Your task to perform on an android device: Search for alienware area 51 on costco.com, select the first entry, and add it to the cart. Image 0: 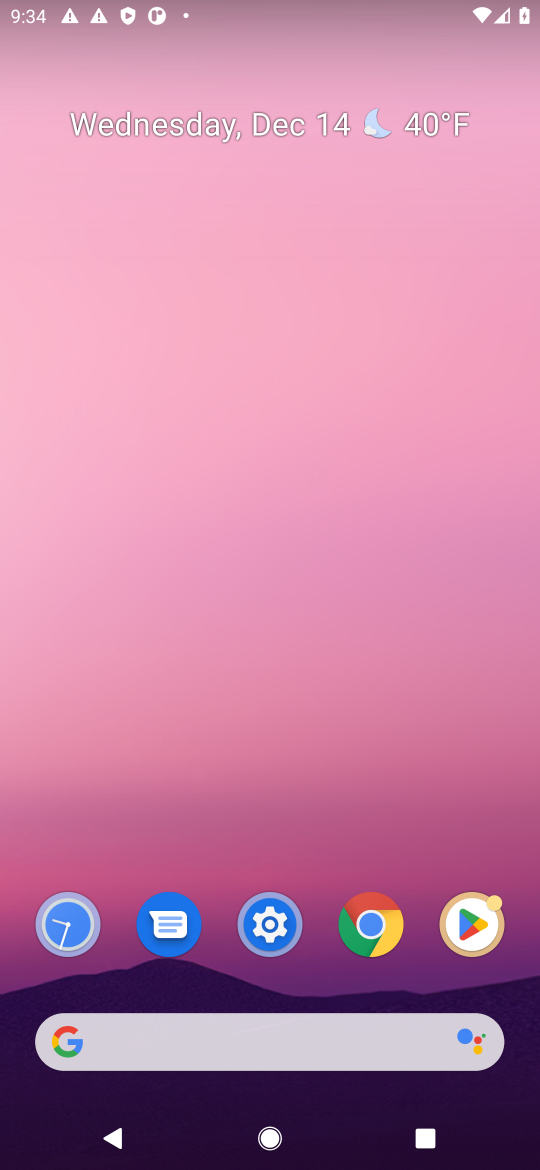
Step 0: click (372, 935)
Your task to perform on an android device: Search for alienware area 51 on costco.com, select the first entry, and add it to the cart. Image 1: 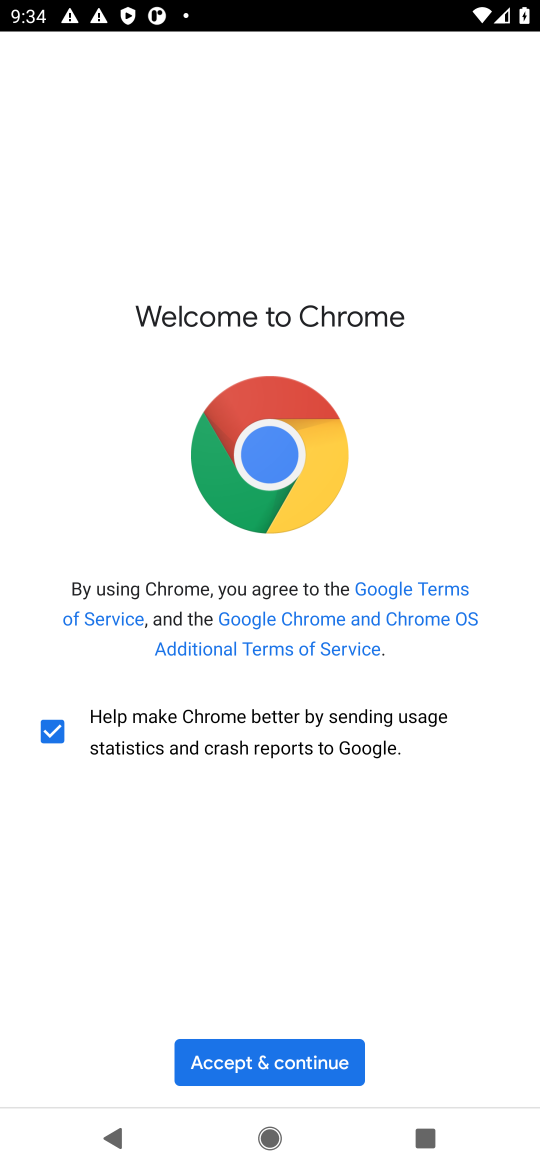
Step 1: click (309, 1062)
Your task to perform on an android device: Search for alienware area 51 on costco.com, select the first entry, and add it to the cart. Image 2: 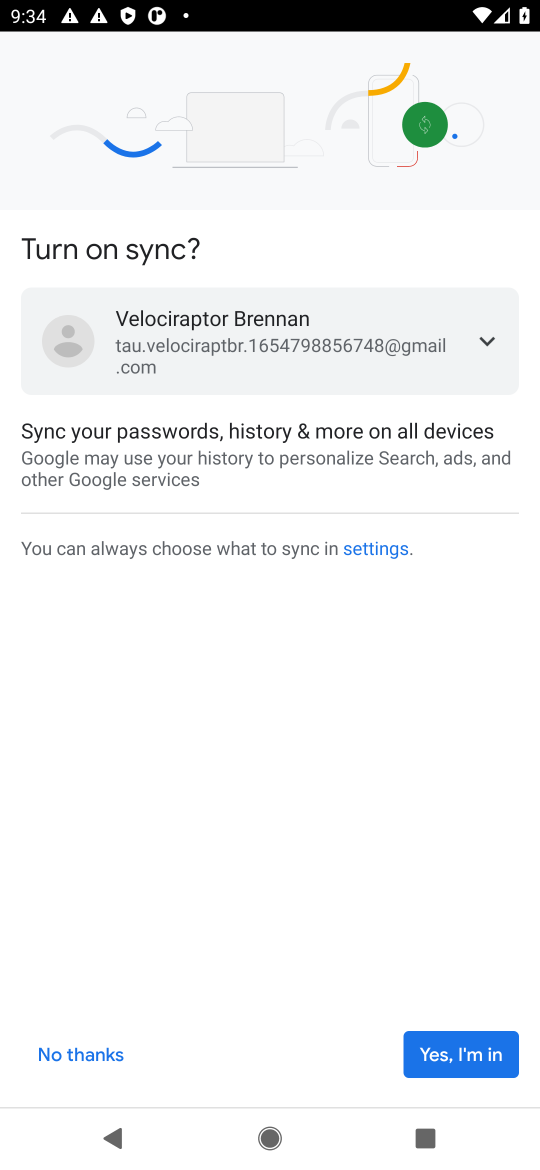
Step 2: click (434, 1053)
Your task to perform on an android device: Search for alienware area 51 on costco.com, select the first entry, and add it to the cart. Image 3: 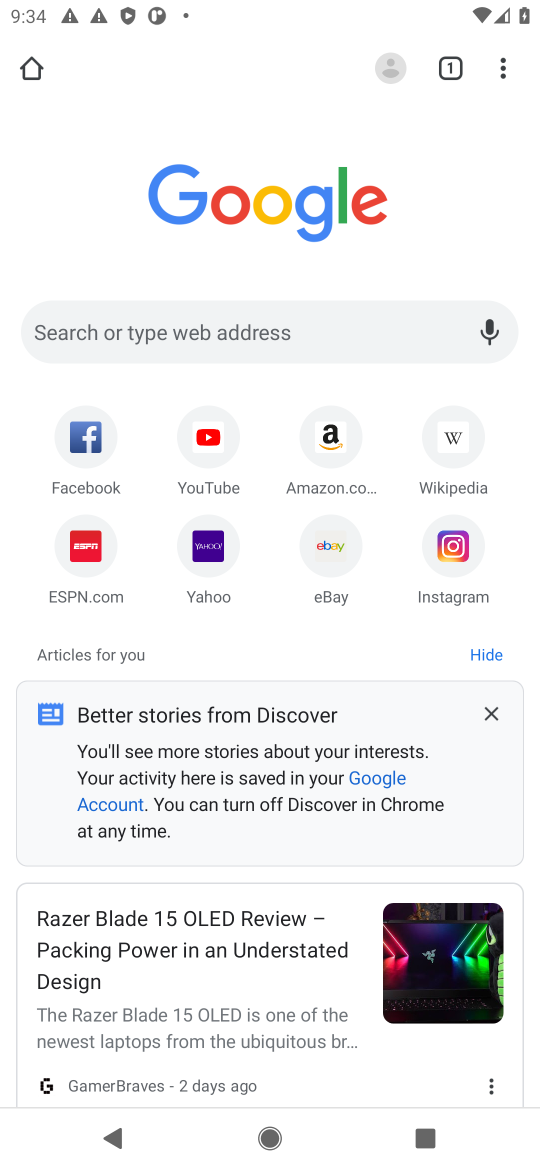
Step 3: click (304, 333)
Your task to perform on an android device: Search for alienware area 51 on costco.com, select the first entry, and add it to the cart. Image 4: 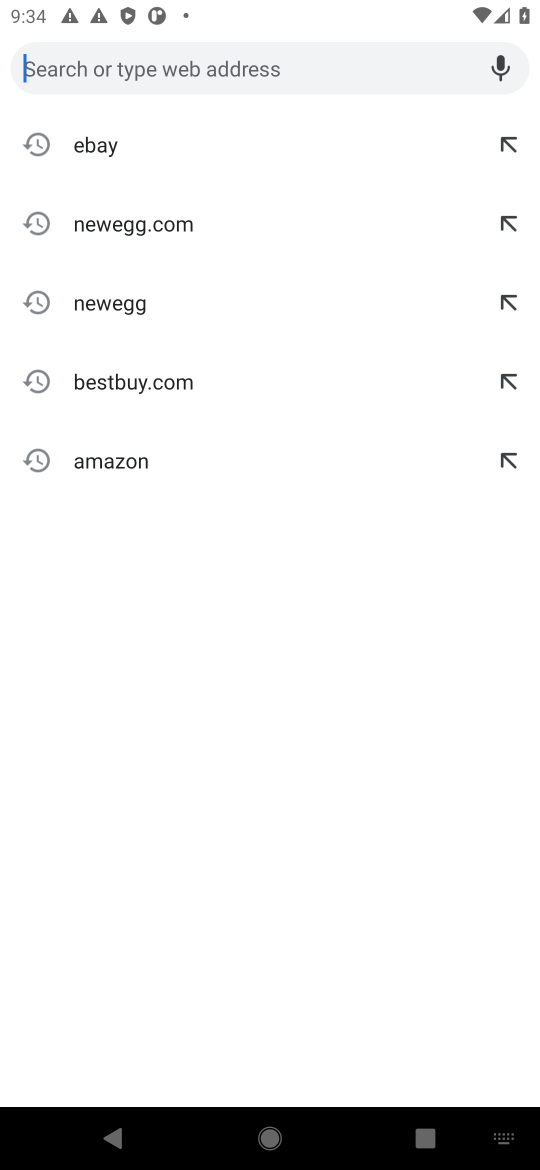
Step 4: type "COSTCO"
Your task to perform on an android device: Search for alienware area 51 on costco.com, select the first entry, and add it to the cart. Image 5: 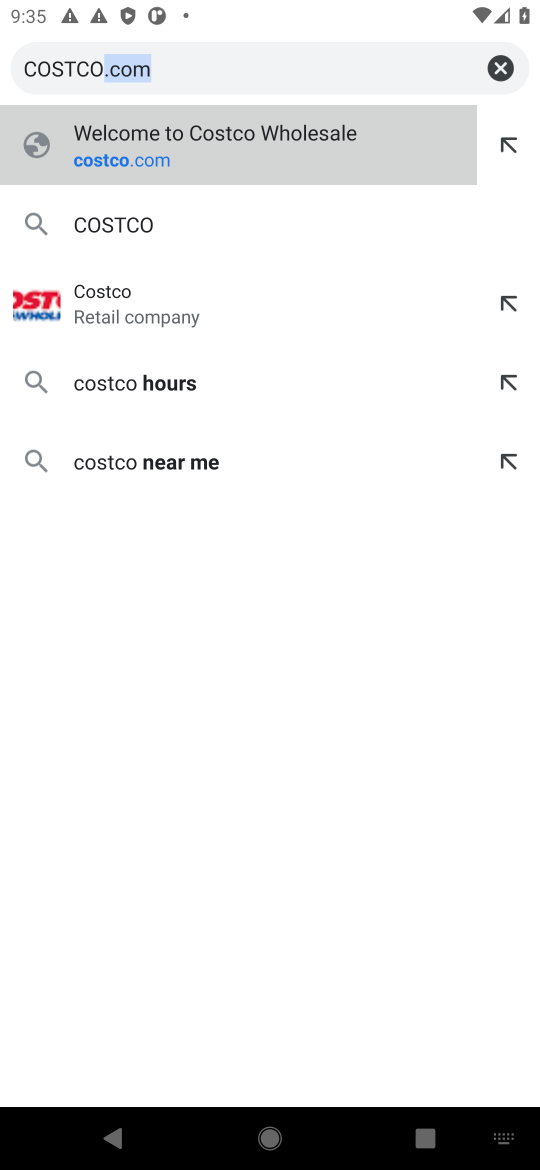
Step 5: click (231, 147)
Your task to perform on an android device: Search for alienware area 51 on costco.com, select the first entry, and add it to the cart. Image 6: 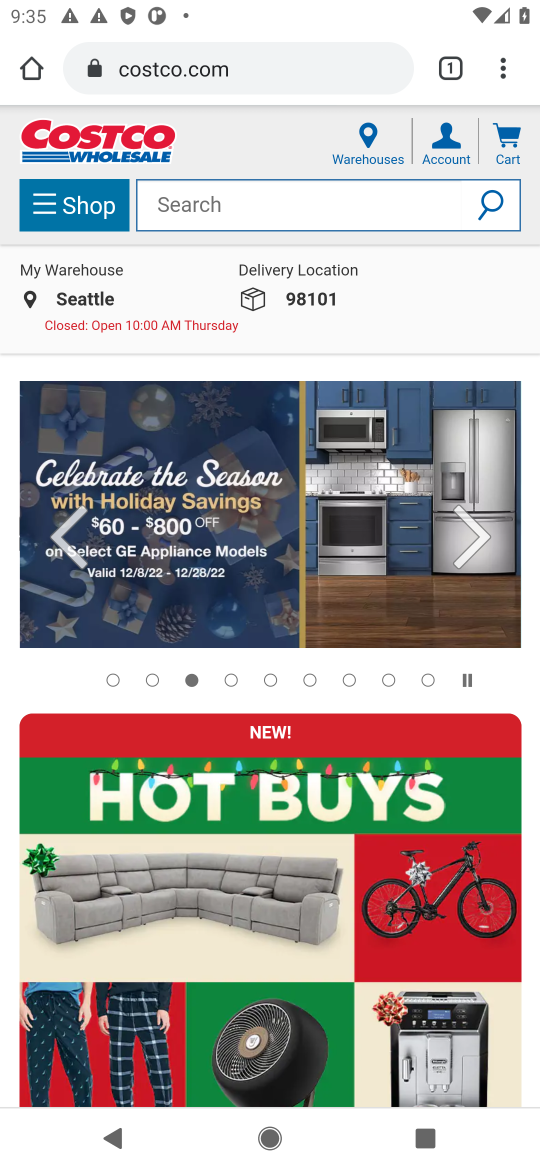
Step 6: click (323, 210)
Your task to perform on an android device: Search for alienware area 51 on costco.com, select the first entry, and add it to the cart. Image 7: 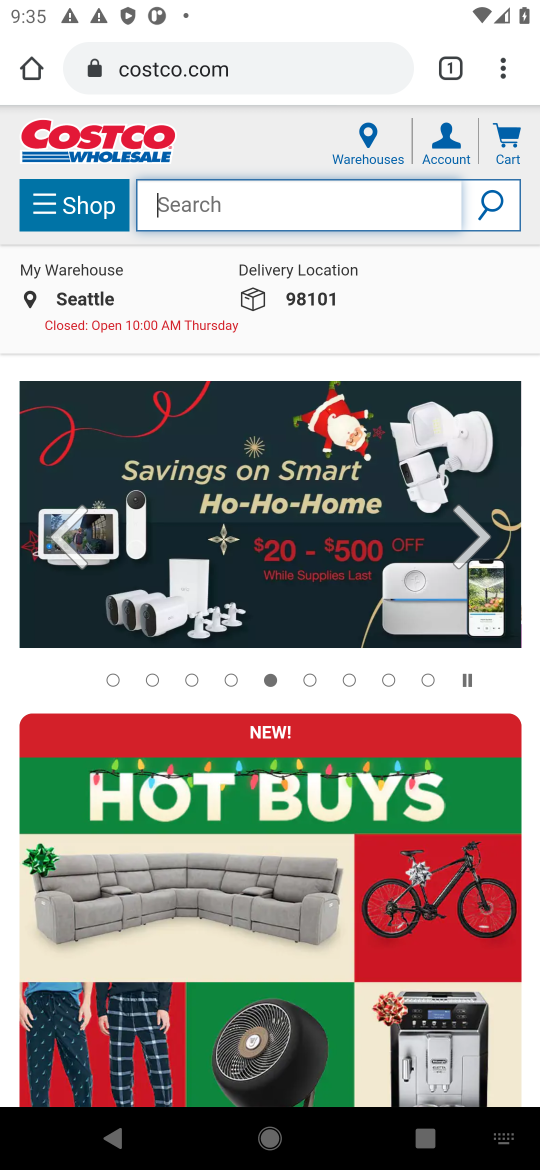
Step 7: type "ALIENWARE AREA 51"
Your task to perform on an android device: Search for alienware area 51 on costco.com, select the first entry, and add it to the cart. Image 8: 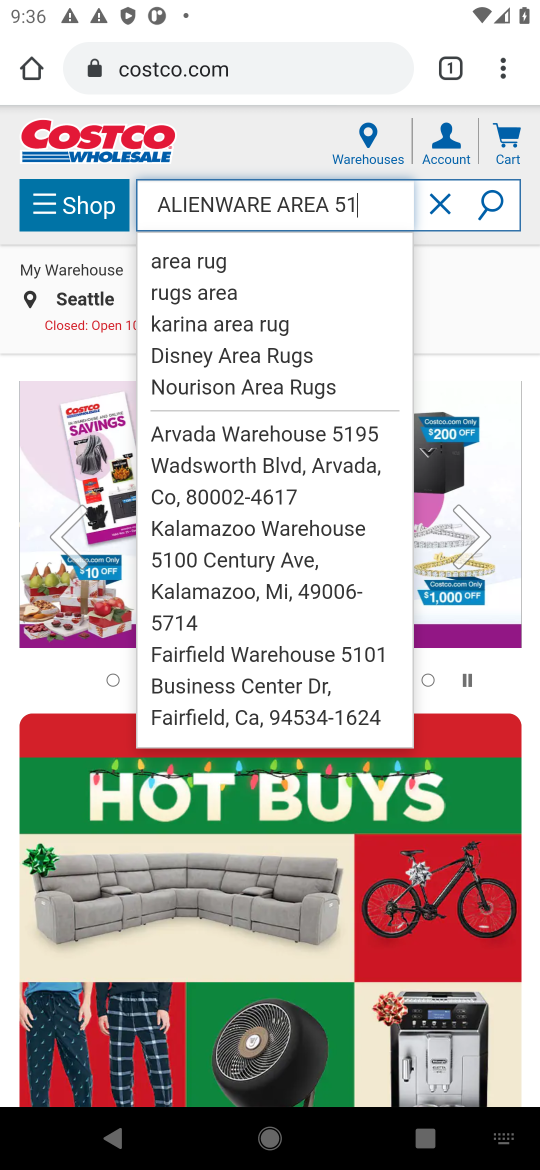
Step 8: click (220, 265)
Your task to perform on an android device: Search for alienware area 51 on costco.com, select the first entry, and add it to the cart. Image 9: 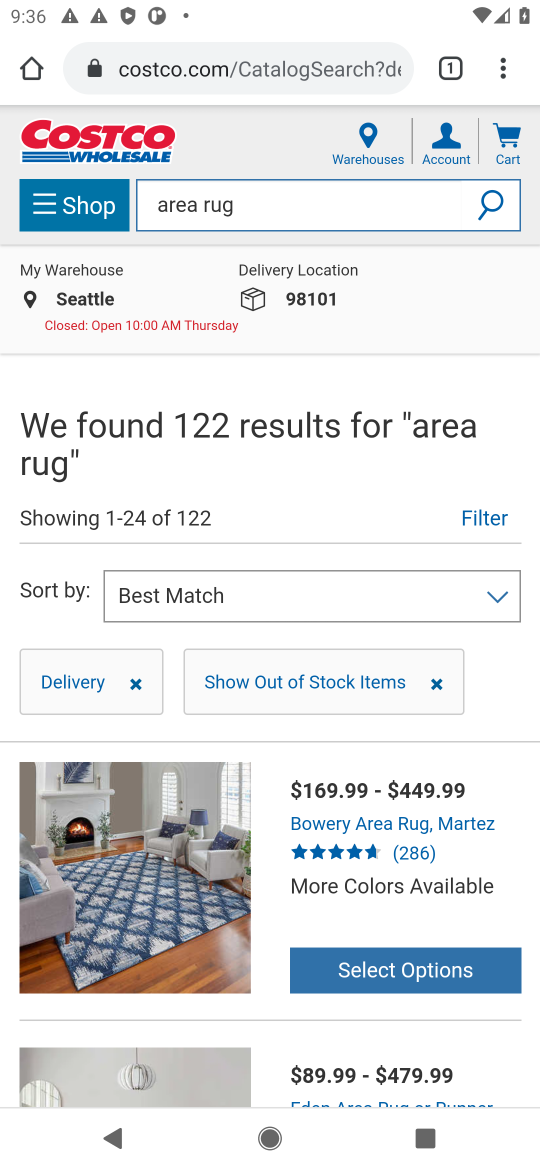
Step 9: click (218, 856)
Your task to perform on an android device: Search for alienware area 51 on costco.com, select the first entry, and add it to the cart. Image 10: 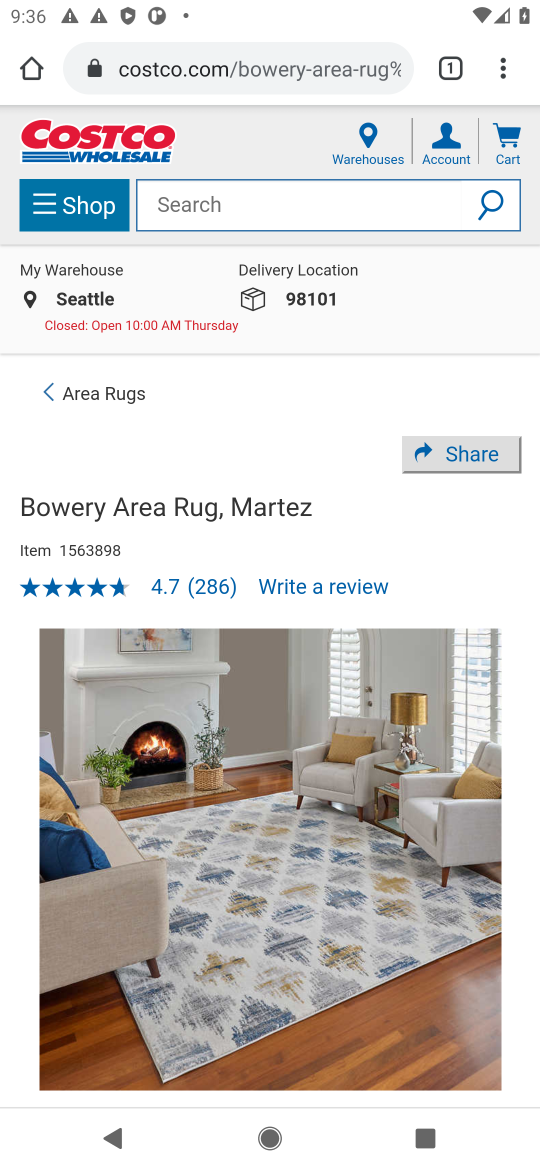
Step 10: drag from (195, 866) to (229, 151)
Your task to perform on an android device: Search for alienware area 51 on costco.com, select the first entry, and add it to the cart. Image 11: 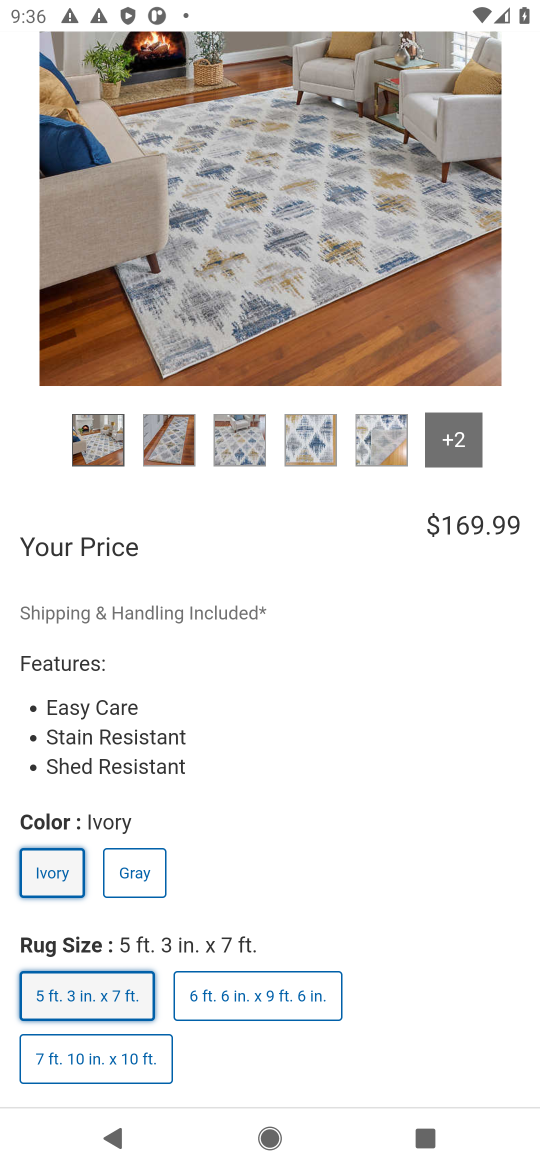
Step 11: drag from (373, 978) to (298, 140)
Your task to perform on an android device: Search for alienware area 51 on costco.com, select the first entry, and add it to the cart. Image 12: 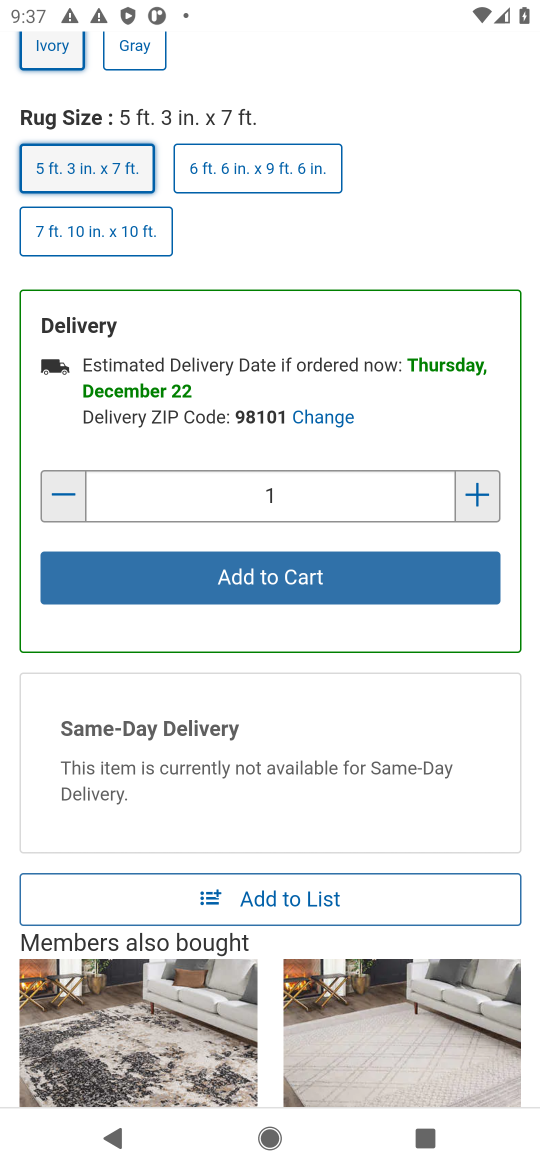
Step 12: click (288, 577)
Your task to perform on an android device: Search for alienware area 51 on costco.com, select the first entry, and add it to the cart. Image 13: 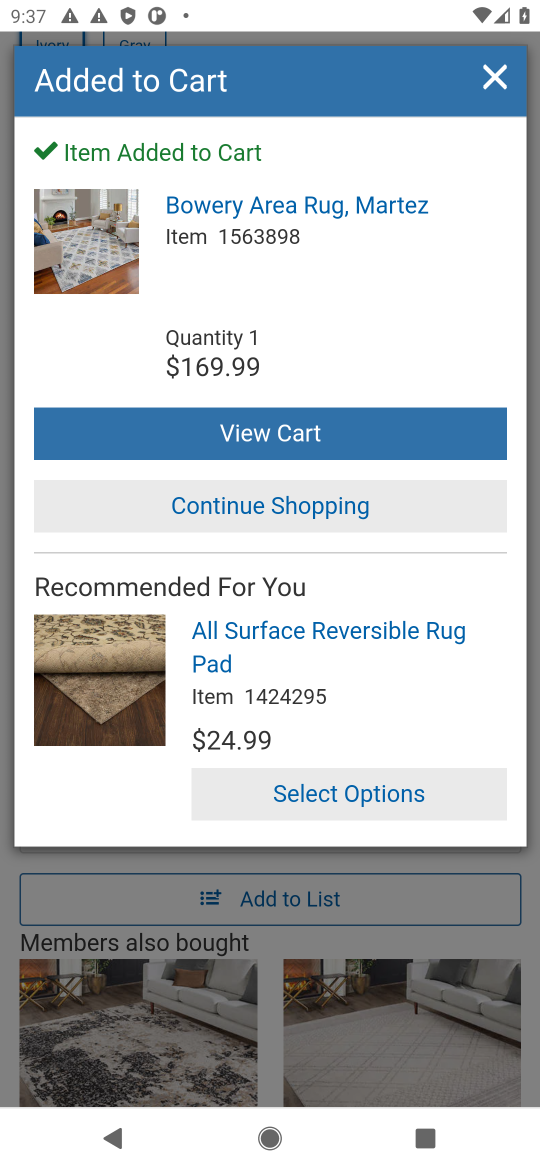
Step 13: click (274, 430)
Your task to perform on an android device: Search for alienware area 51 on costco.com, select the first entry, and add it to the cart. Image 14: 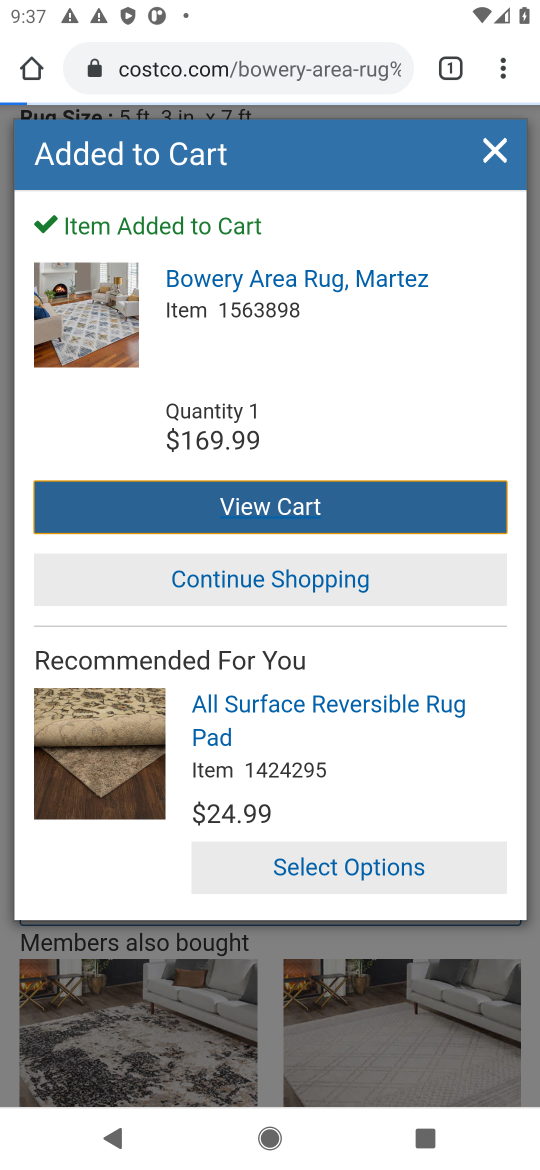
Step 14: task complete